Your task to perform on an android device: find photos in the google photos app Image 0: 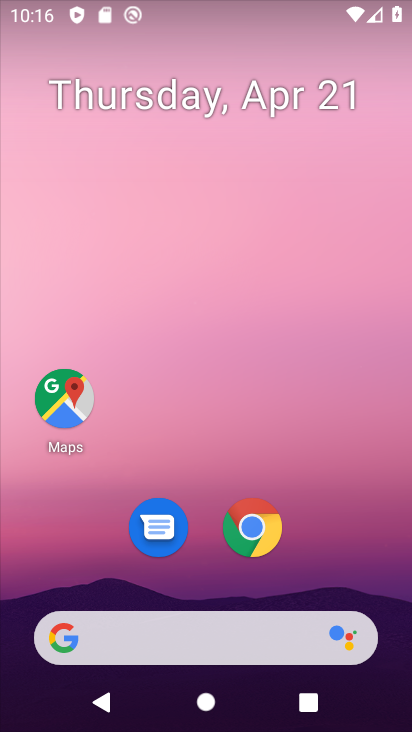
Step 0: drag from (314, 548) to (331, 128)
Your task to perform on an android device: find photos in the google photos app Image 1: 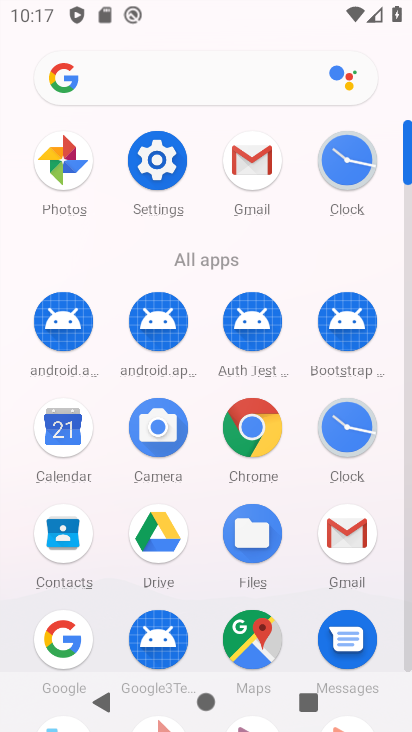
Step 1: drag from (212, 629) to (223, 251)
Your task to perform on an android device: find photos in the google photos app Image 2: 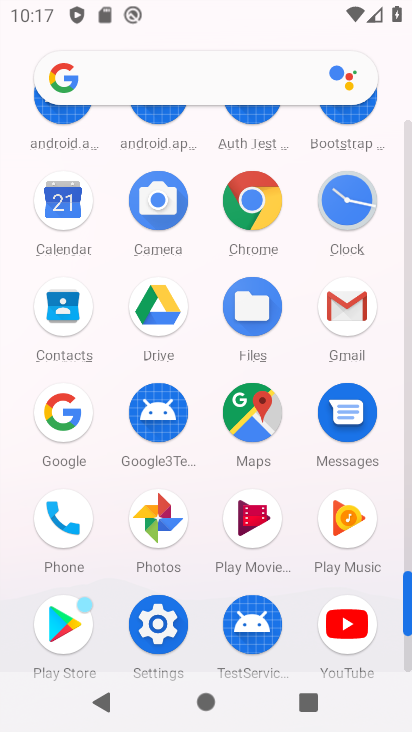
Step 2: click (163, 544)
Your task to perform on an android device: find photos in the google photos app Image 3: 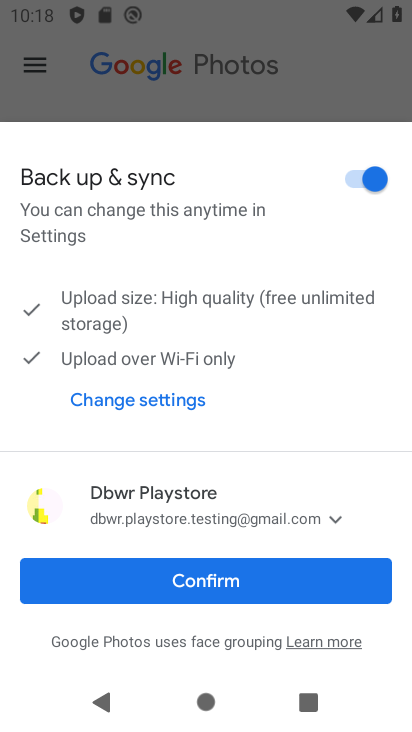
Step 3: click (283, 589)
Your task to perform on an android device: find photos in the google photos app Image 4: 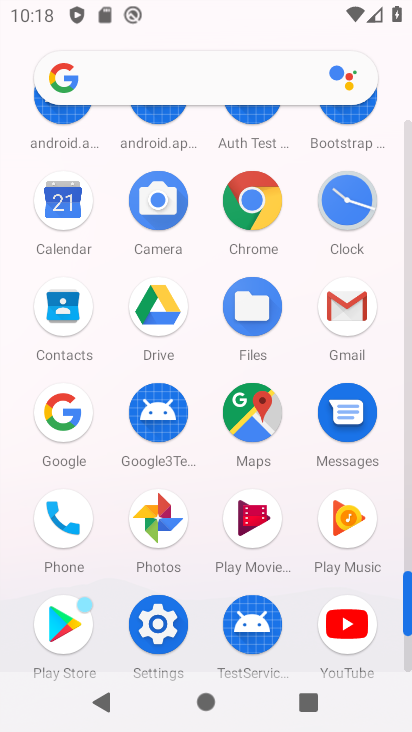
Step 4: click (150, 520)
Your task to perform on an android device: find photos in the google photos app Image 5: 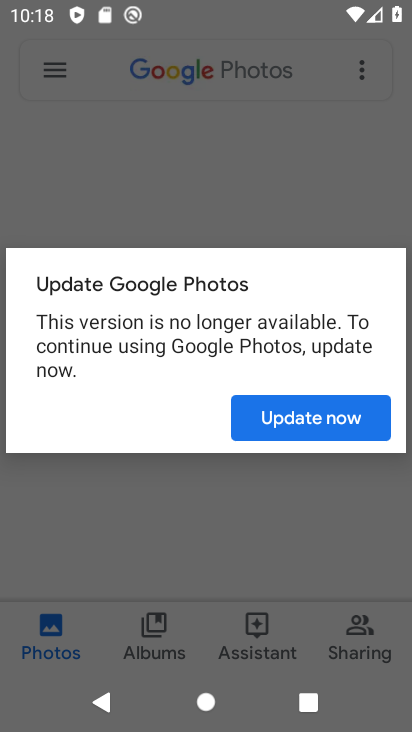
Step 5: click (317, 422)
Your task to perform on an android device: find photos in the google photos app Image 6: 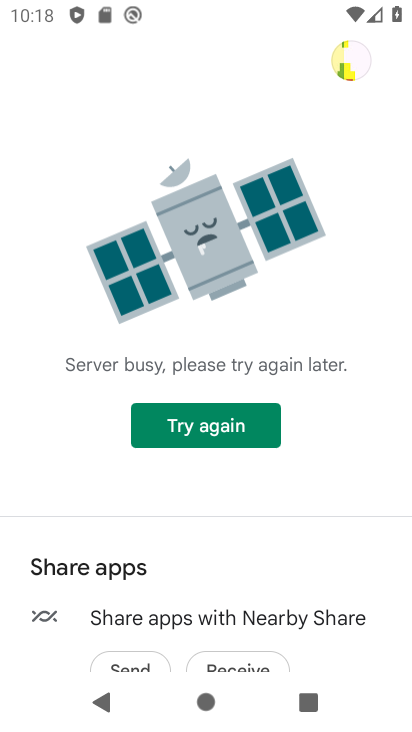
Step 6: task complete